Your task to perform on an android device: Open internet settings Image 0: 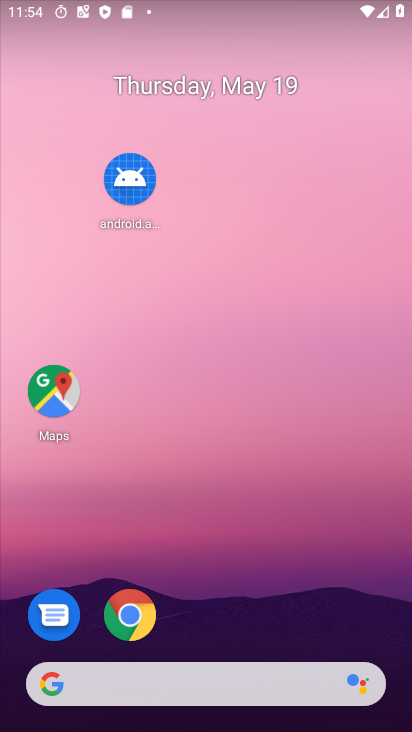
Step 0: drag from (379, 634) to (326, 255)
Your task to perform on an android device: Open internet settings Image 1: 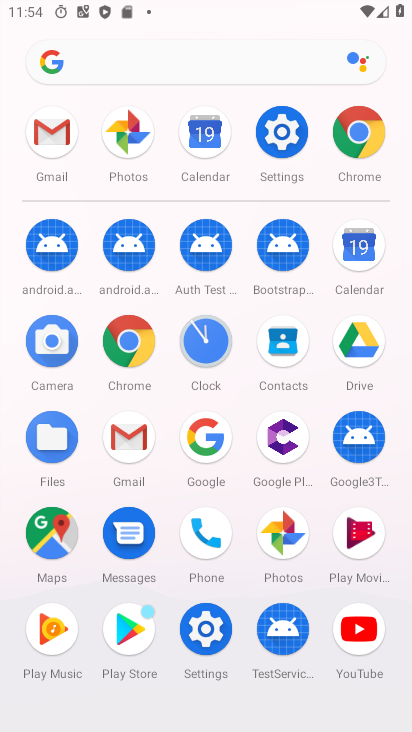
Step 1: click (293, 120)
Your task to perform on an android device: Open internet settings Image 2: 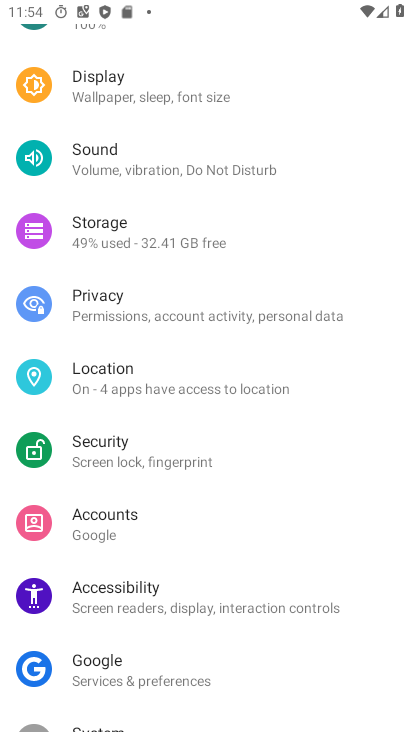
Step 2: drag from (212, 185) to (205, 618)
Your task to perform on an android device: Open internet settings Image 3: 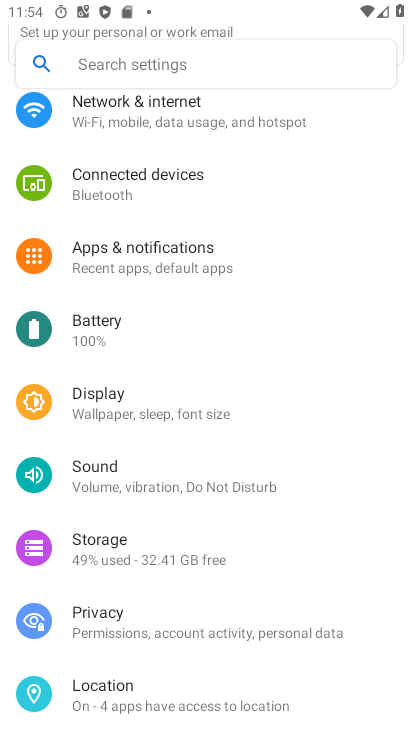
Step 3: click (160, 115)
Your task to perform on an android device: Open internet settings Image 4: 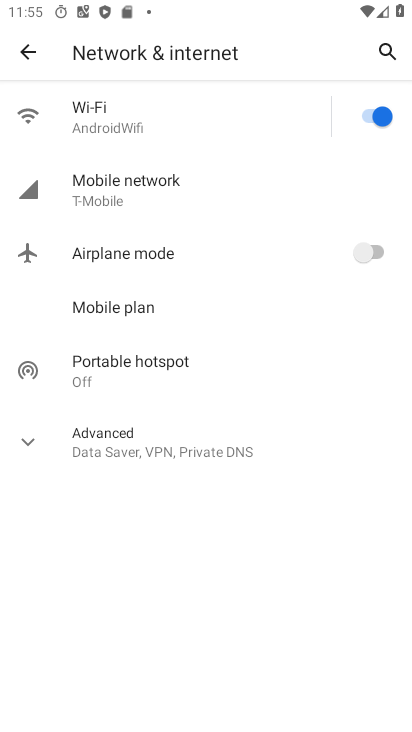
Step 4: task complete